Your task to perform on an android device: What's on my calendar today? Image 0: 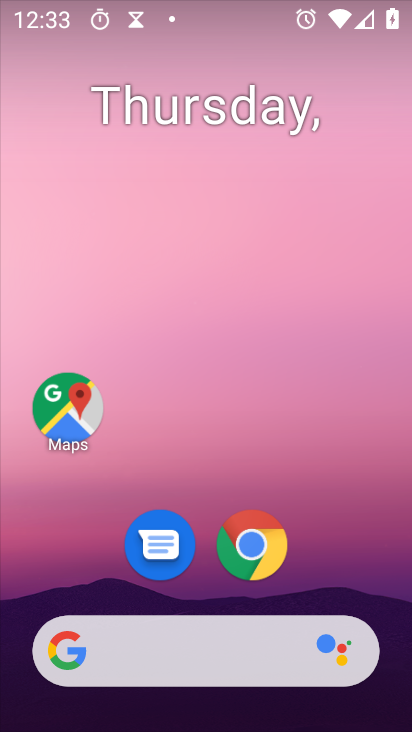
Step 0: press home button
Your task to perform on an android device: What's on my calendar today? Image 1: 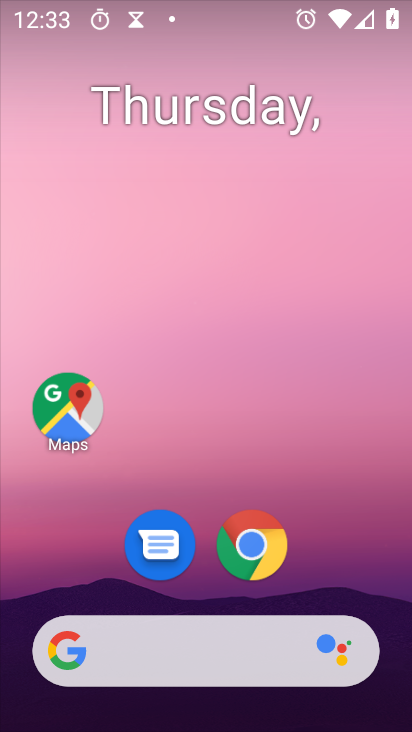
Step 1: drag from (102, 657) to (288, 146)
Your task to perform on an android device: What's on my calendar today? Image 2: 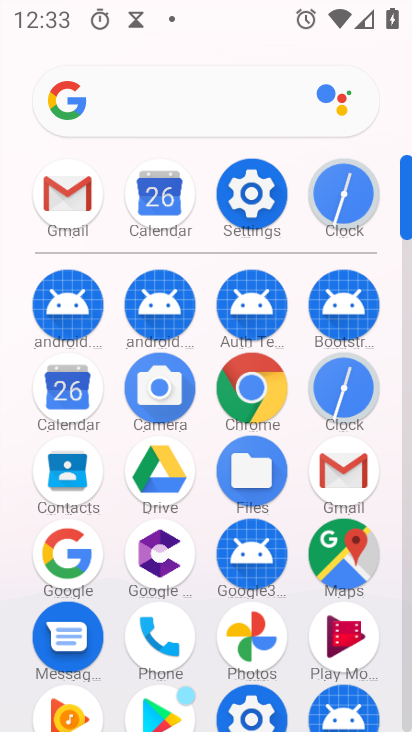
Step 2: click (49, 384)
Your task to perform on an android device: What's on my calendar today? Image 3: 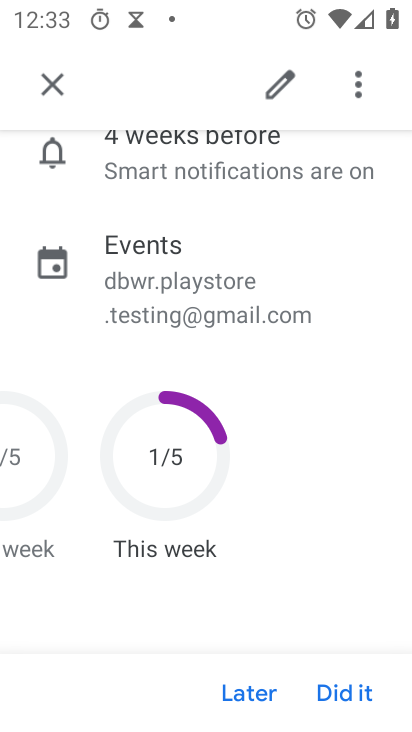
Step 3: task complete